Your task to perform on an android device: Set the phone to "Do not disturb". Image 0: 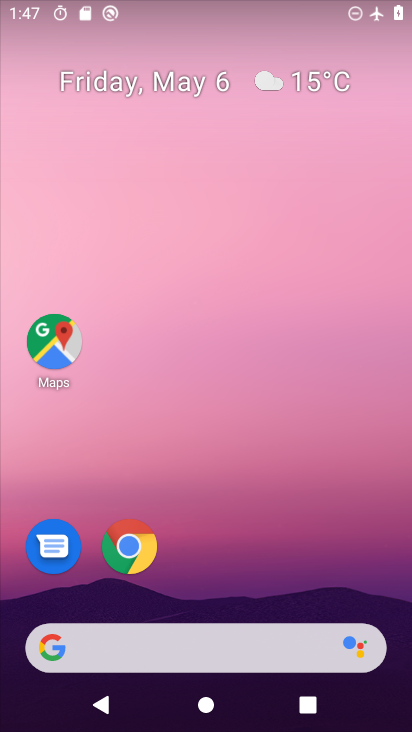
Step 0: drag from (211, 506) to (238, 174)
Your task to perform on an android device: Set the phone to "Do not disturb". Image 1: 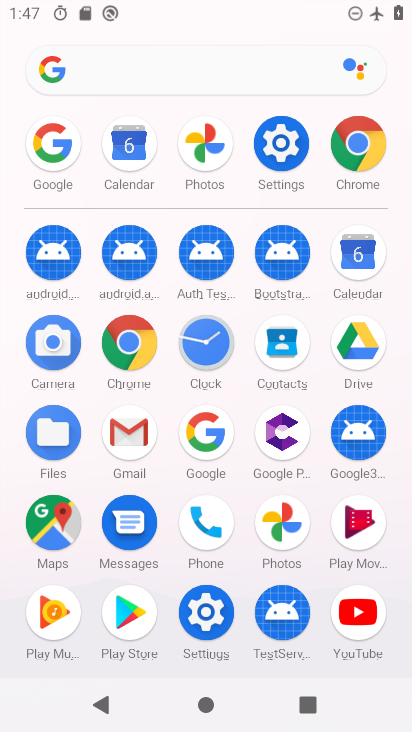
Step 1: click (285, 140)
Your task to perform on an android device: Set the phone to "Do not disturb". Image 2: 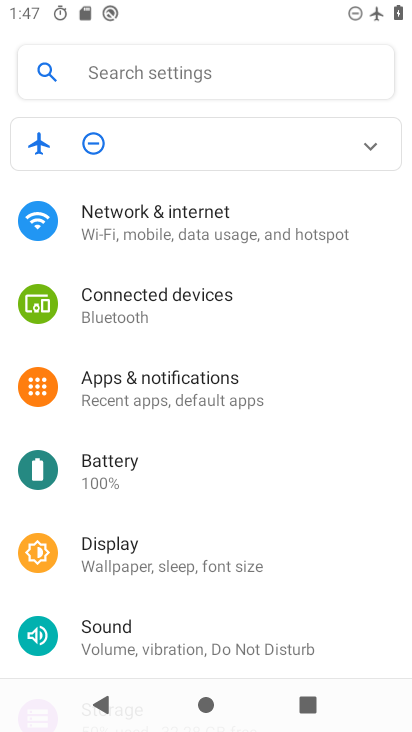
Step 2: click (226, 633)
Your task to perform on an android device: Set the phone to "Do not disturb". Image 3: 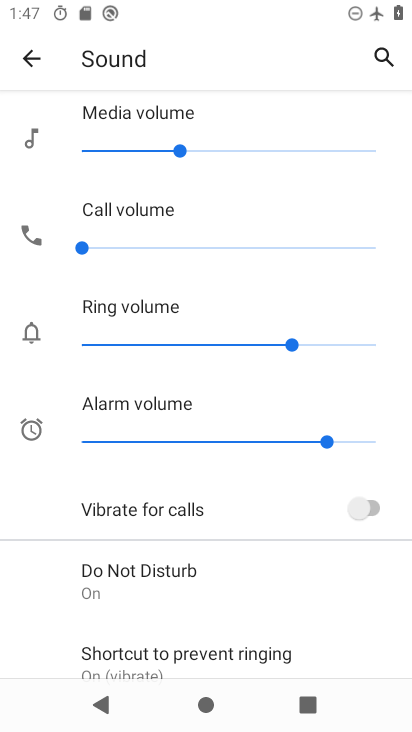
Step 3: click (191, 583)
Your task to perform on an android device: Set the phone to "Do not disturb". Image 4: 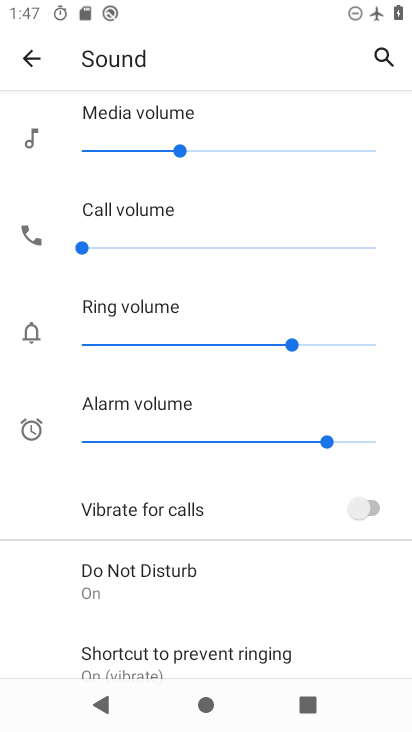
Step 4: click (191, 583)
Your task to perform on an android device: Set the phone to "Do not disturb". Image 5: 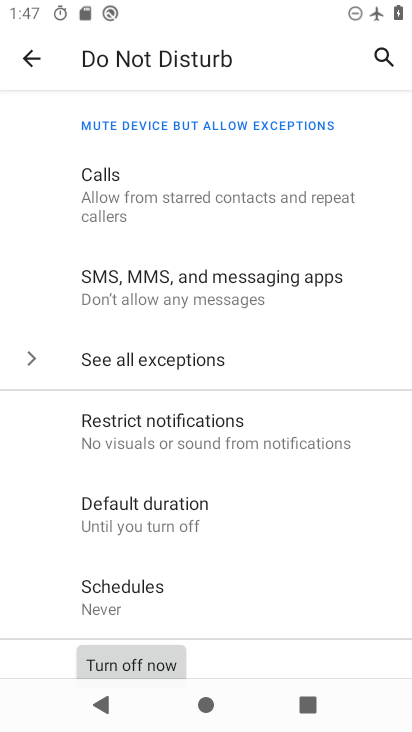
Step 5: task complete